Your task to perform on an android device: Show me the alarms in the clock app Image 0: 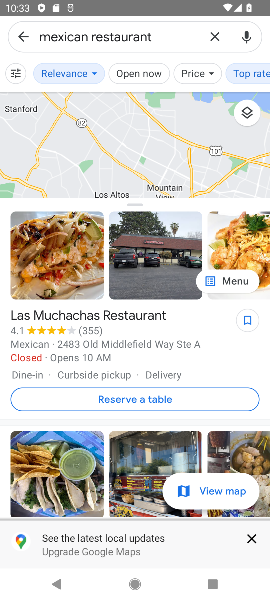
Step 0: press back button
Your task to perform on an android device: Show me the alarms in the clock app Image 1: 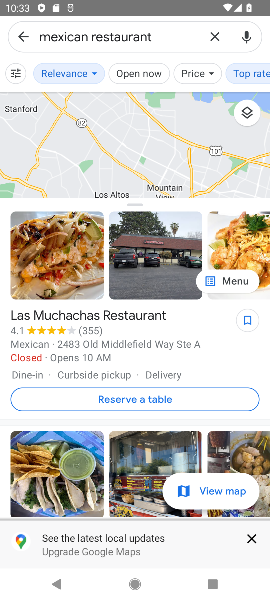
Step 1: press back button
Your task to perform on an android device: Show me the alarms in the clock app Image 2: 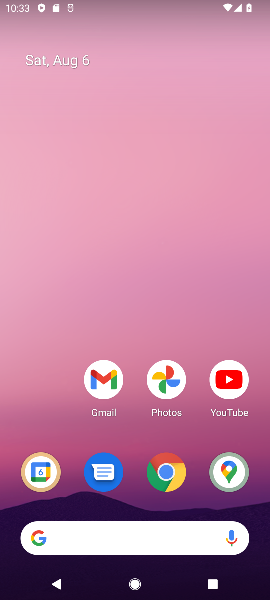
Step 2: drag from (193, 545) to (150, 86)
Your task to perform on an android device: Show me the alarms in the clock app Image 3: 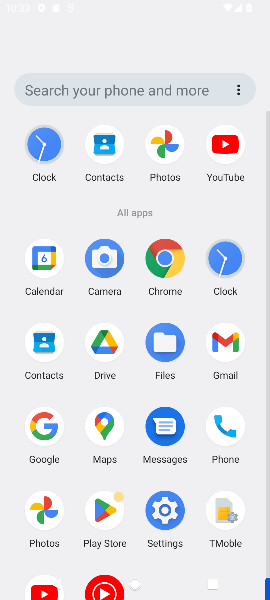
Step 3: drag from (145, 386) to (162, 9)
Your task to perform on an android device: Show me the alarms in the clock app Image 4: 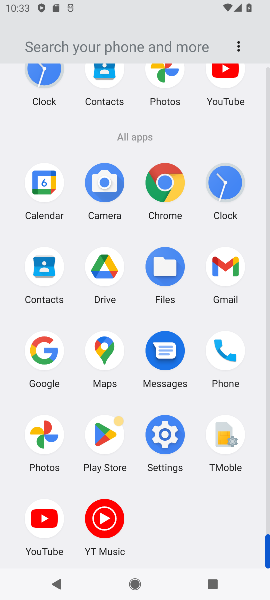
Step 4: click (220, 180)
Your task to perform on an android device: Show me the alarms in the clock app Image 5: 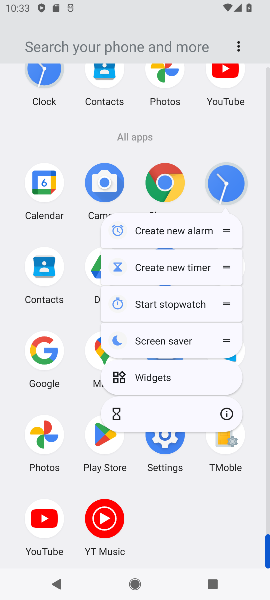
Step 5: click (221, 181)
Your task to perform on an android device: Show me the alarms in the clock app Image 6: 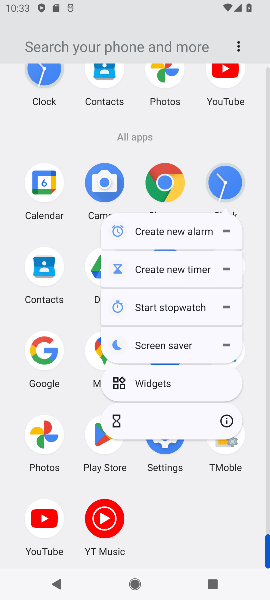
Step 6: click (221, 194)
Your task to perform on an android device: Show me the alarms in the clock app Image 7: 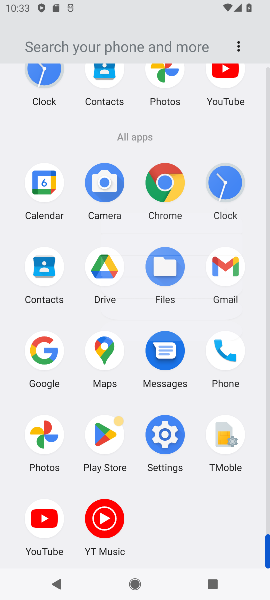
Step 7: click (222, 200)
Your task to perform on an android device: Show me the alarms in the clock app Image 8: 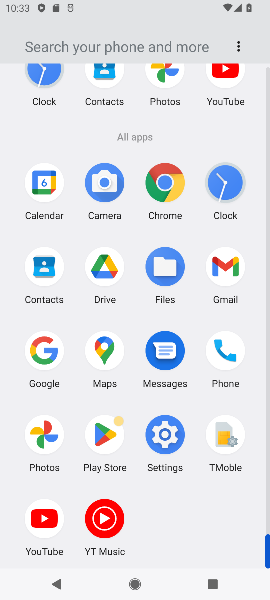
Step 8: click (220, 186)
Your task to perform on an android device: Show me the alarms in the clock app Image 9: 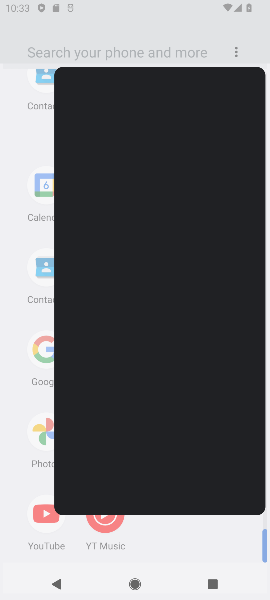
Step 9: click (218, 184)
Your task to perform on an android device: Show me the alarms in the clock app Image 10: 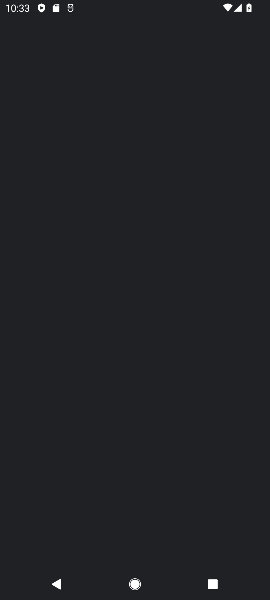
Step 10: click (218, 184)
Your task to perform on an android device: Show me the alarms in the clock app Image 11: 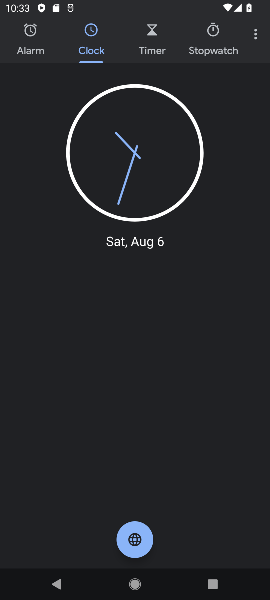
Step 11: click (30, 41)
Your task to perform on an android device: Show me the alarms in the clock app Image 12: 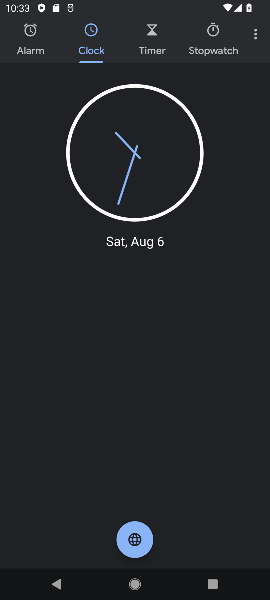
Step 12: click (30, 41)
Your task to perform on an android device: Show me the alarms in the clock app Image 13: 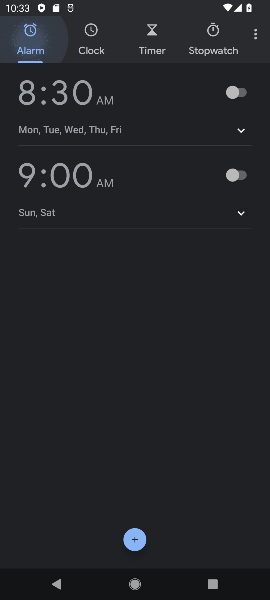
Step 13: click (35, 37)
Your task to perform on an android device: Show me the alarms in the clock app Image 14: 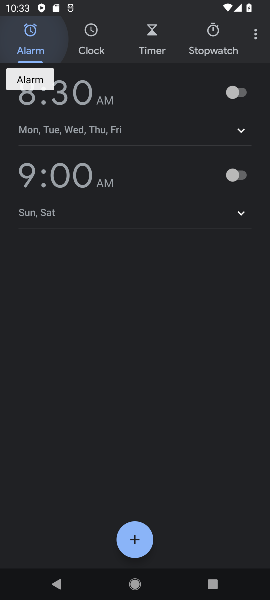
Step 14: click (233, 93)
Your task to perform on an android device: Show me the alarms in the clock app Image 15: 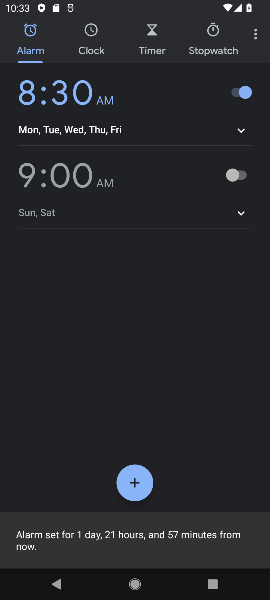
Step 15: task complete